Your task to perform on an android device: Open CNN.com Image 0: 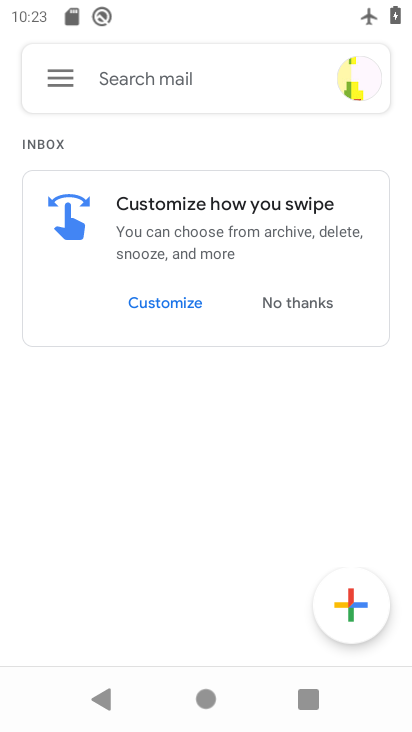
Step 0: press home button
Your task to perform on an android device: Open CNN.com Image 1: 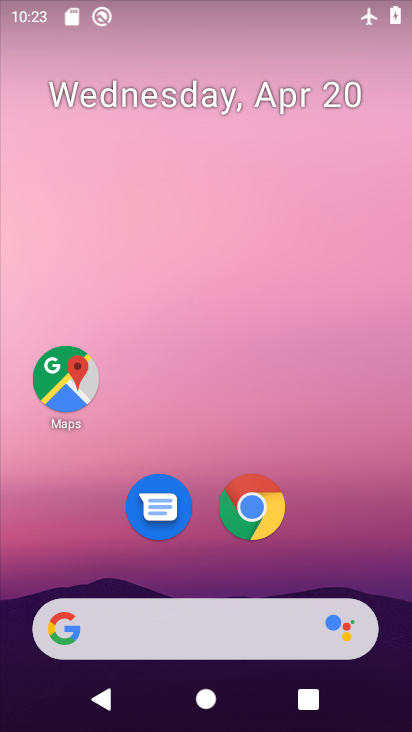
Step 1: click (253, 505)
Your task to perform on an android device: Open CNN.com Image 2: 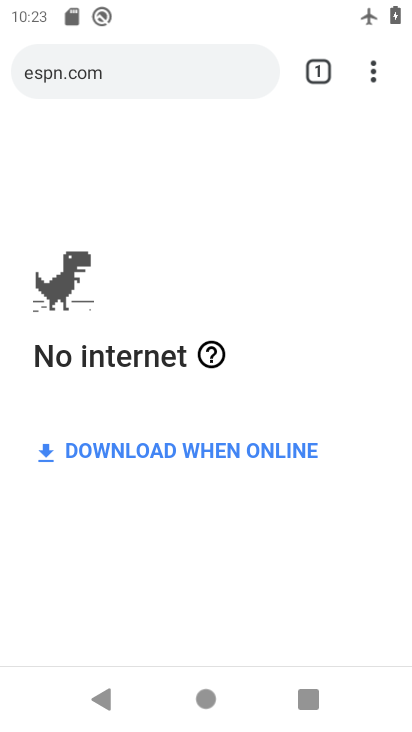
Step 2: click (72, 69)
Your task to perform on an android device: Open CNN.com Image 3: 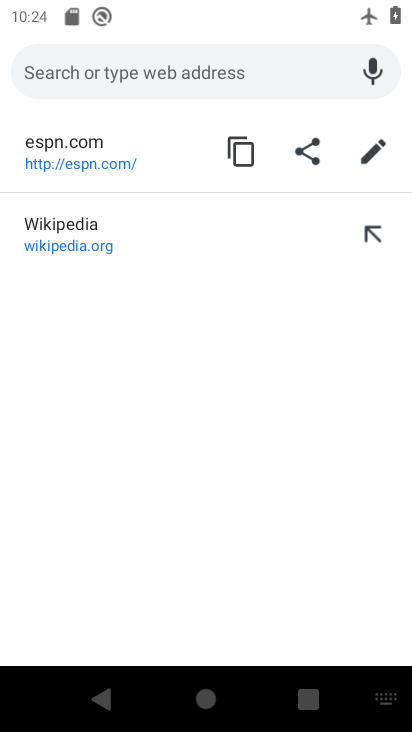
Step 3: type "CNN.com"
Your task to perform on an android device: Open CNN.com Image 4: 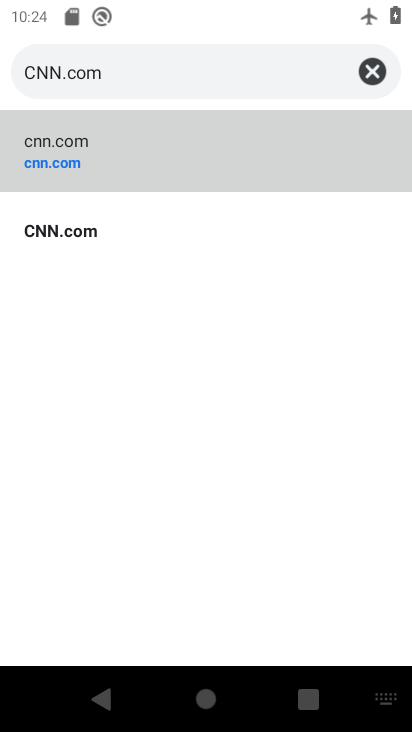
Step 4: click (138, 164)
Your task to perform on an android device: Open CNN.com Image 5: 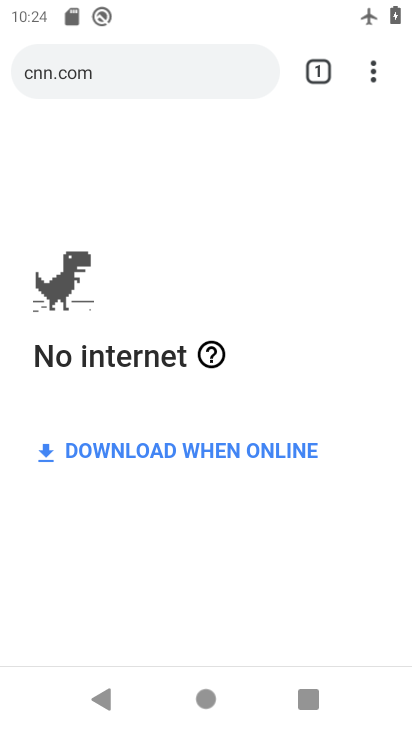
Step 5: task complete